Your task to perform on an android device: open app "Truecaller" (install if not already installed) Image 0: 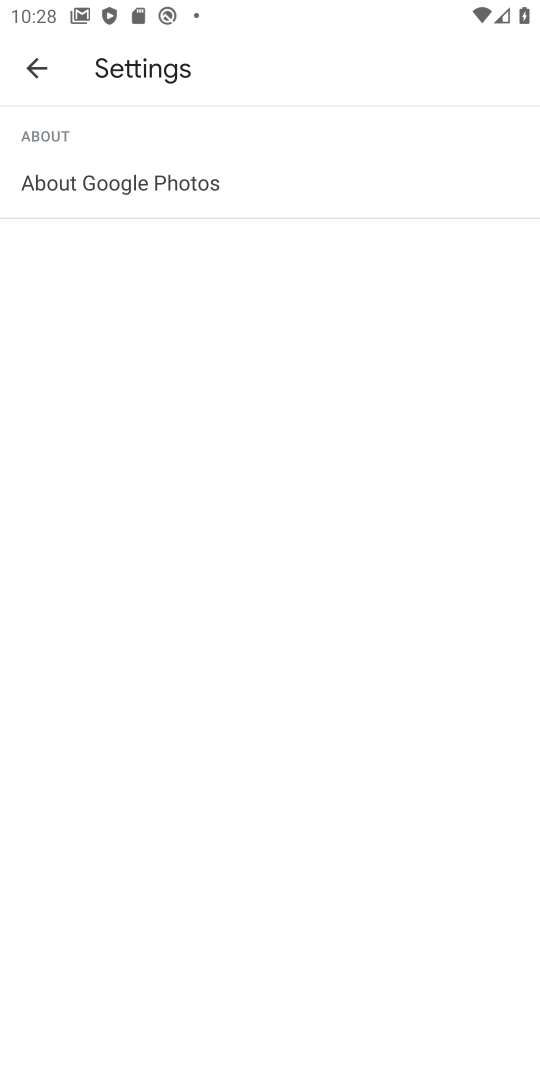
Step 0: press home button
Your task to perform on an android device: open app "Truecaller" (install if not already installed) Image 1: 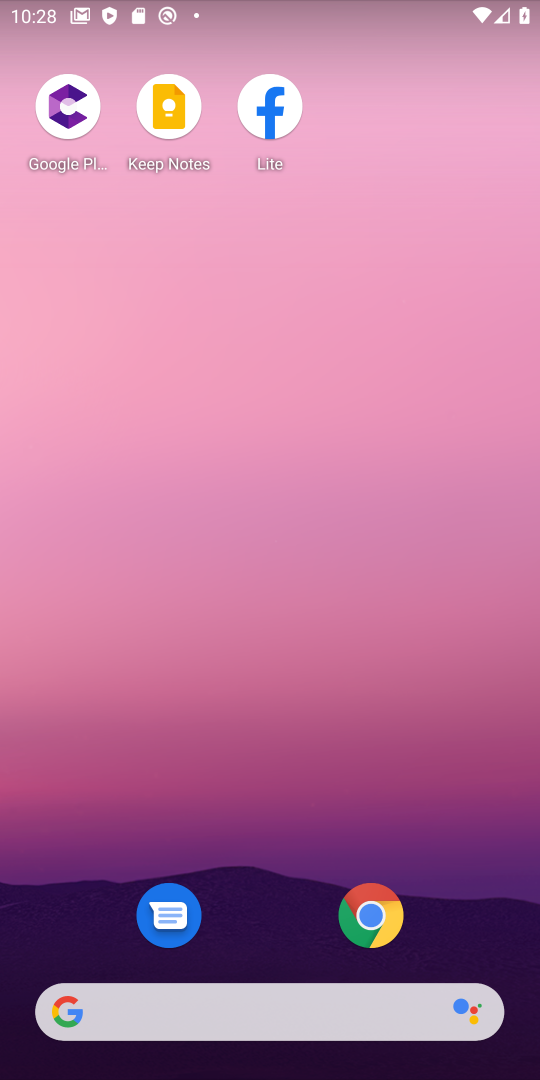
Step 1: drag from (276, 855) to (203, 90)
Your task to perform on an android device: open app "Truecaller" (install if not already installed) Image 2: 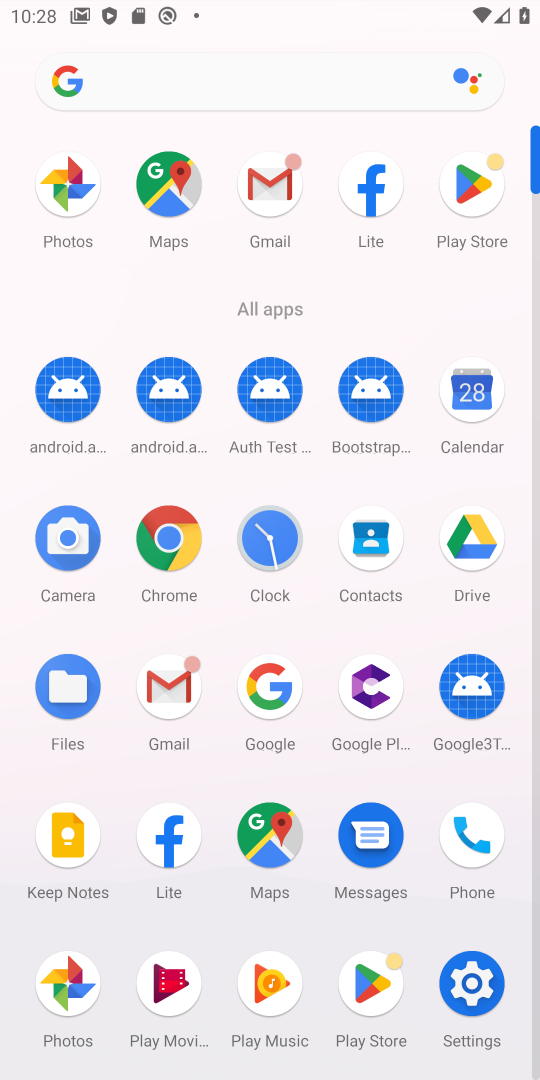
Step 2: click (360, 975)
Your task to perform on an android device: open app "Truecaller" (install if not already installed) Image 3: 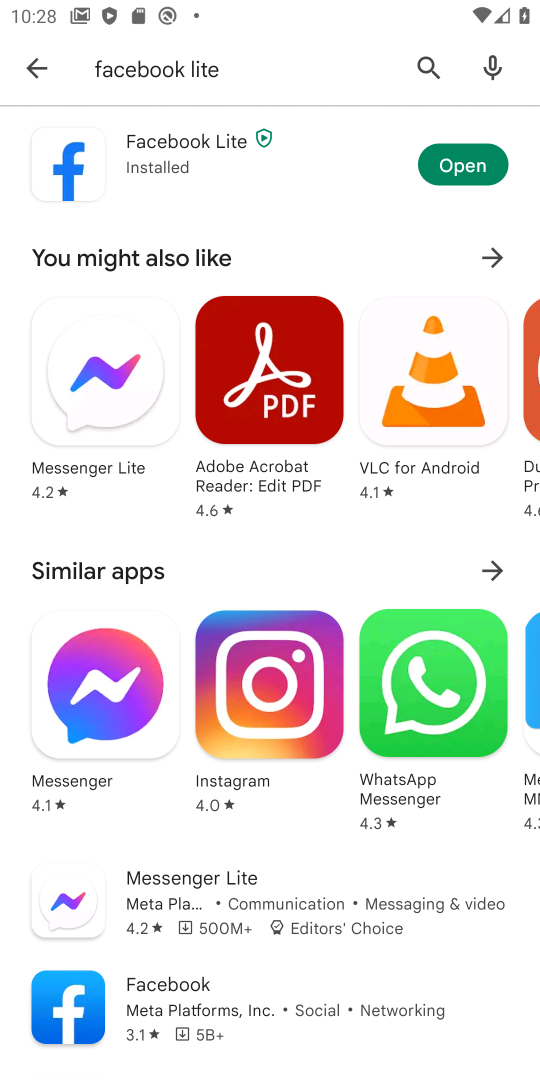
Step 3: click (43, 63)
Your task to perform on an android device: open app "Truecaller" (install if not already installed) Image 4: 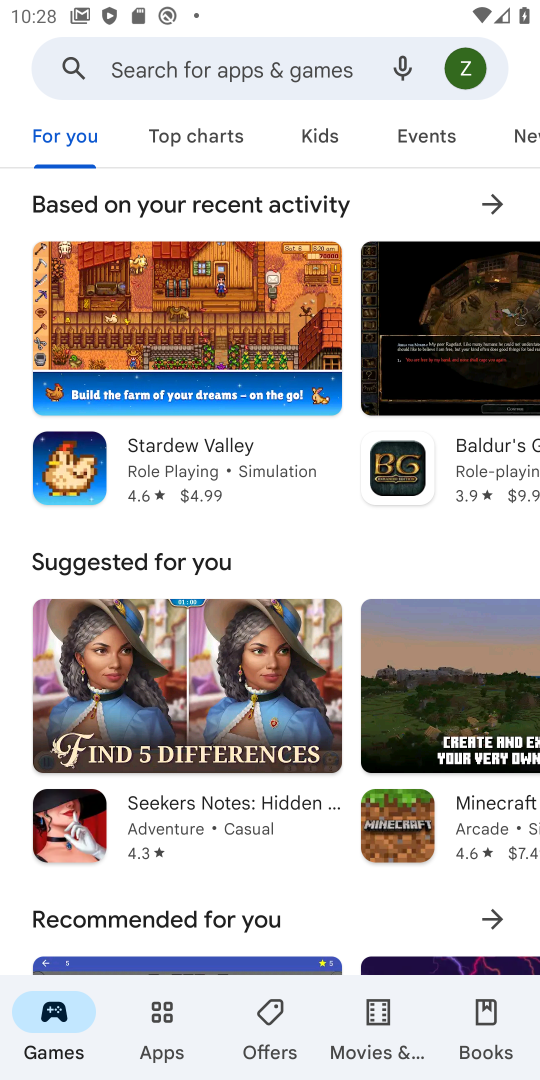
Step 4: click (140, 71)
Your task to perform on an android device: open app "Truecaller" (install if not already installed) Image 5: 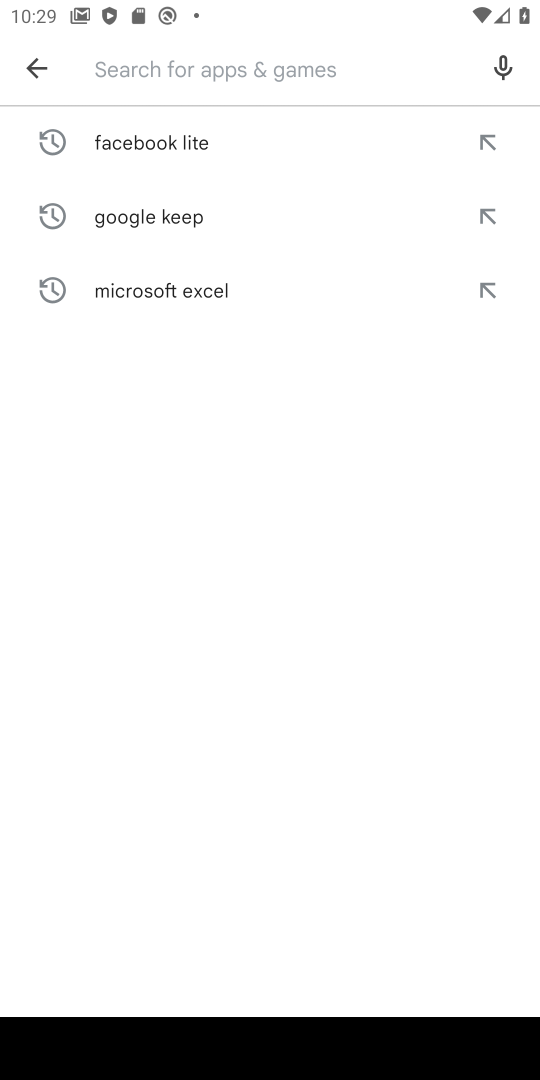
Step 5: type ""Truecaller""
Your task to perform on an android device: open app "Truecaller" (install if not already installed) Image 6: 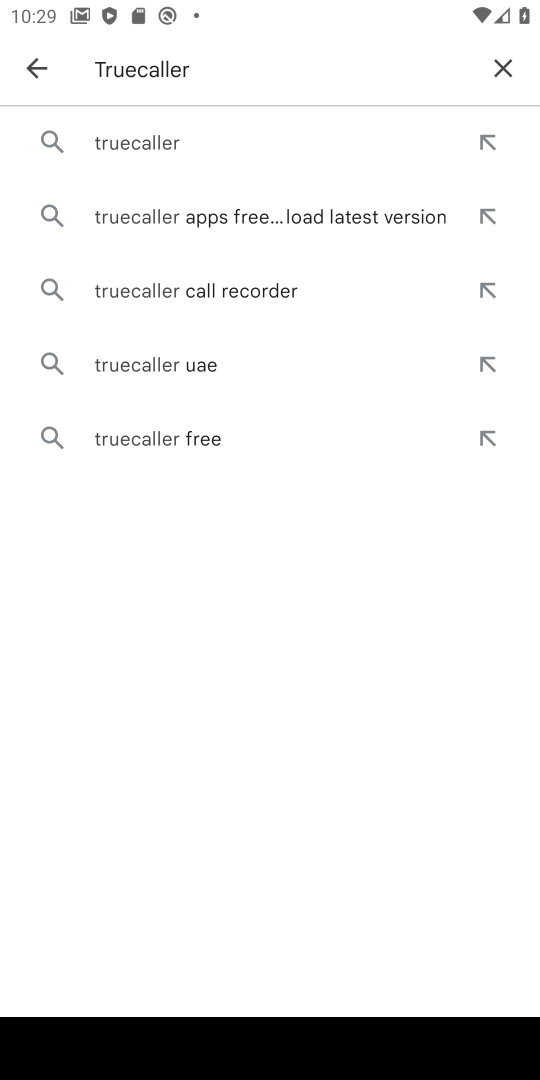
Step 6: click (130, 149)
Your task to perform on an android device: open app "Truecaller" (install if not already installed) Image 7: 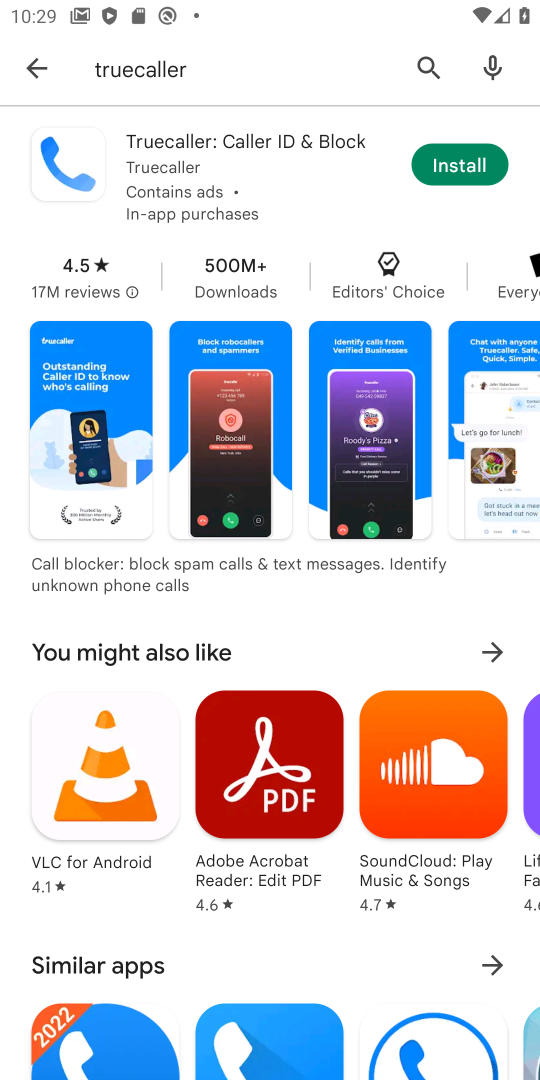
Step 7: click (453, 157)
Your task to perform on an android device: open app "Truecaller" (install if not already installed) Image 8: 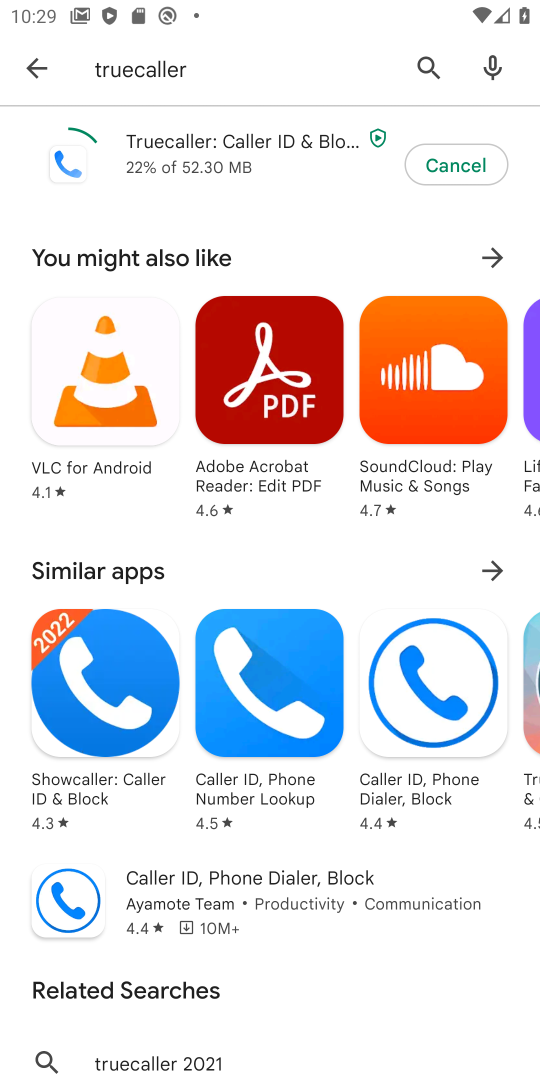
Step 8: click (487, 171)
Your task to perform on an android device: open app "Truecaller" (install if not already installed) Image 9: 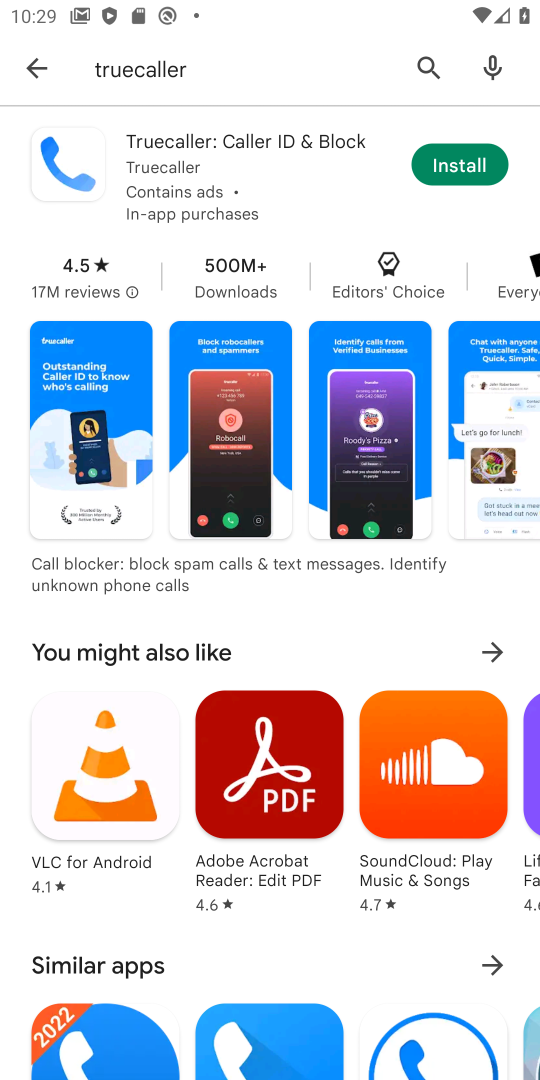
Step 9: click (461, 161)
Your task to perform on an android device: open app "Truecaller" (install if not already installed) Image 10: 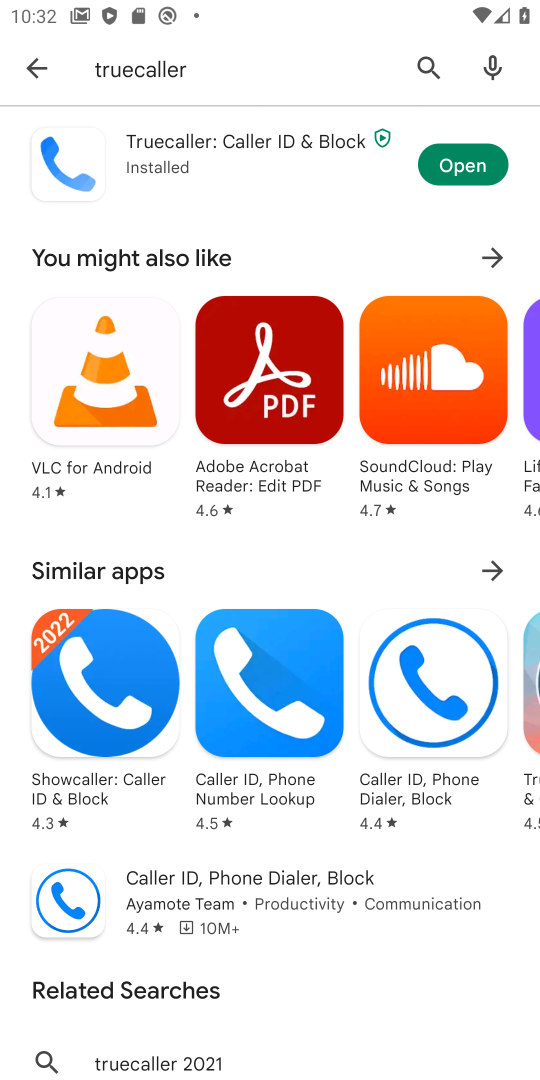
Step 10: task complete